Your task to perform on an android device: all mails in gmail Image 0: 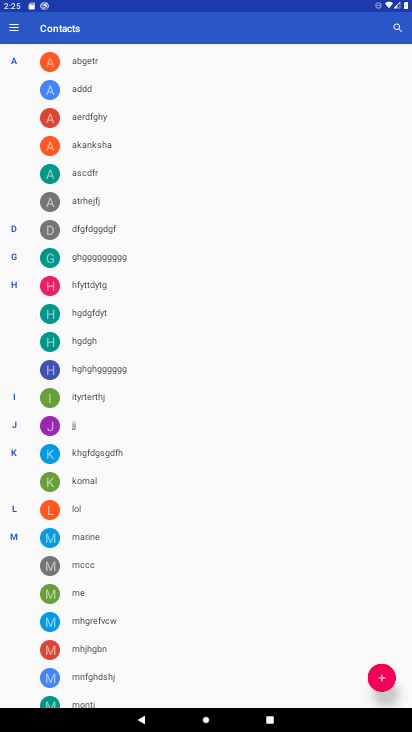
Step 0: press home button
Your task to perform on an android device: all mails in gmail Image 1: 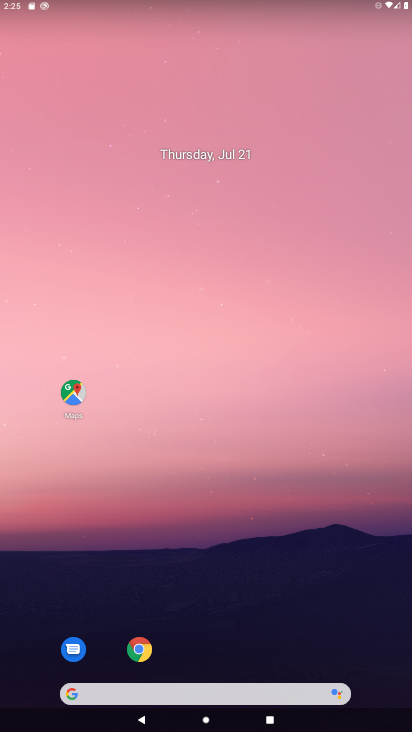
Step 1: drag from (266, 636) to (369, 20)
Your task to perform on an android device: all mails in gmail Image 2: 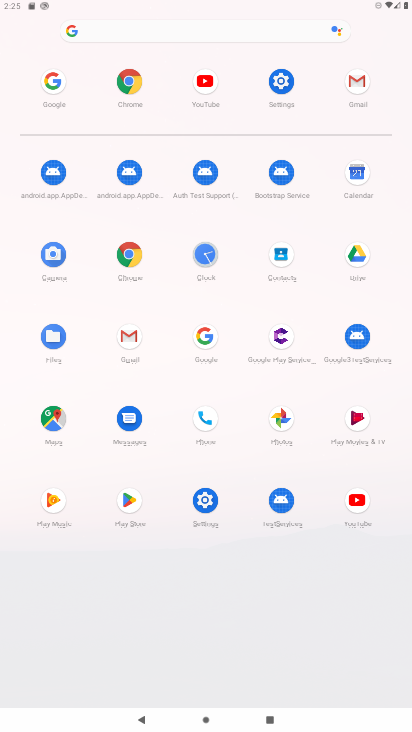
Step 2: click (127, 341)
Your task to perform on an android device: all mails in gmail Image 3: 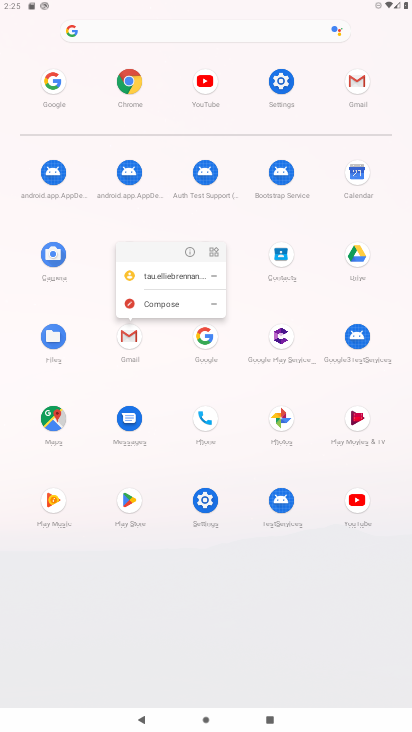
Step 3: click (138, 342)
Your task to perform on an android device: all mails in gmail Image 4: 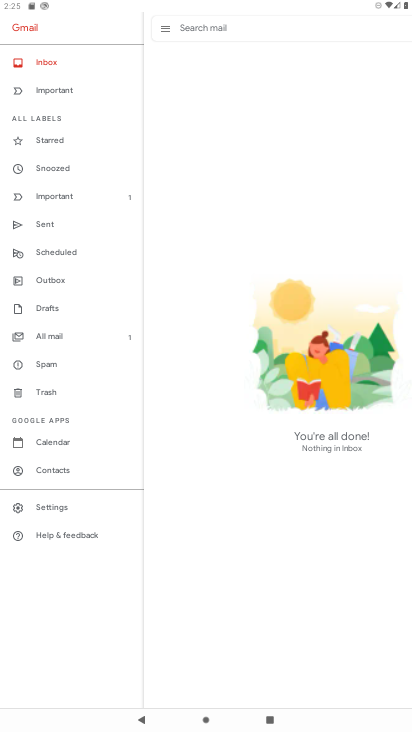
Step 4: click (38, 346)
Your task to perform on an android device: all mails in gmail Image 5: 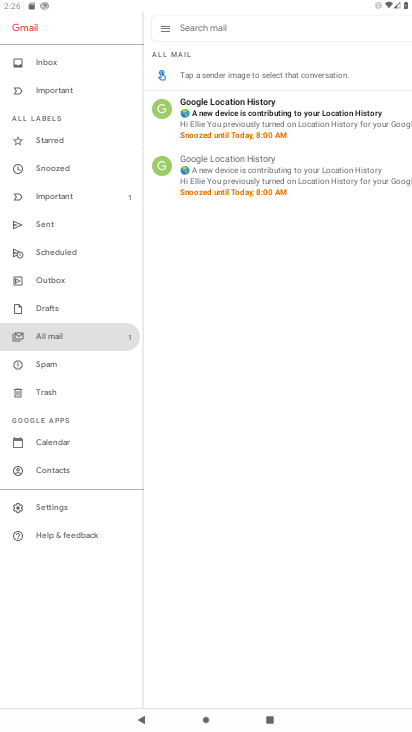
Step 5: task complete